Your task to perform on an android device: allow notifications from all sites in the chrome app Image 0: 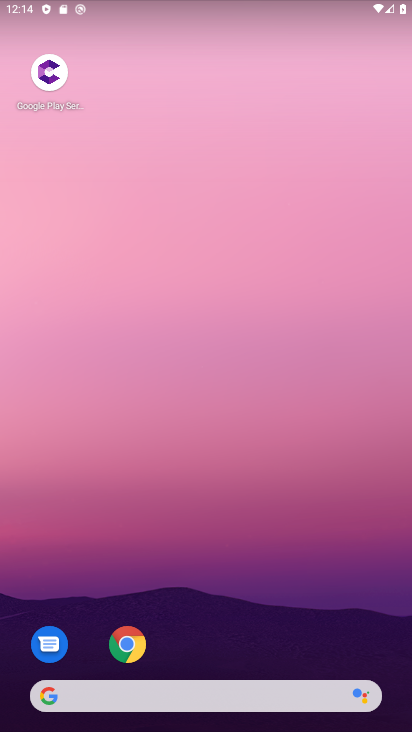
Step 0: click (123, 650)
Your task to perform on an android device: allow notifications from all sites in the chrome app Image 1: 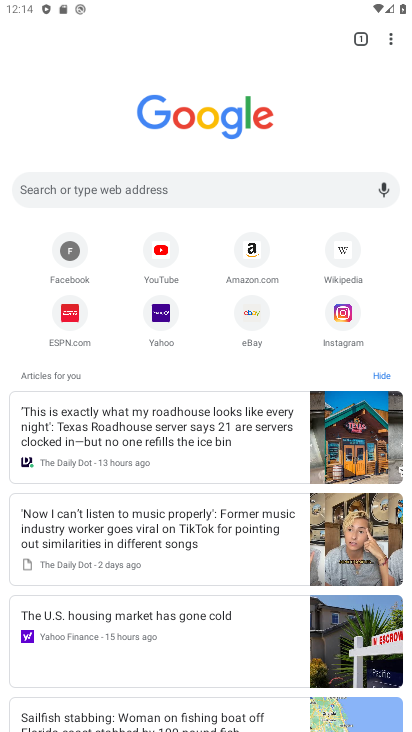
Step 1: click (383, 38)
Your task to perform on an android device: allow notifications from all sites in the chrome app Image 2: 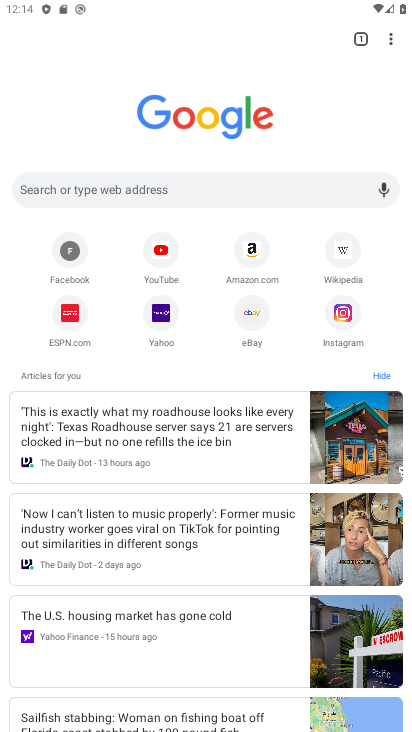
Step 2: click (392, 42)
Your task to perform on an android device: allow notifications from all sites in the chrome app Image 3: 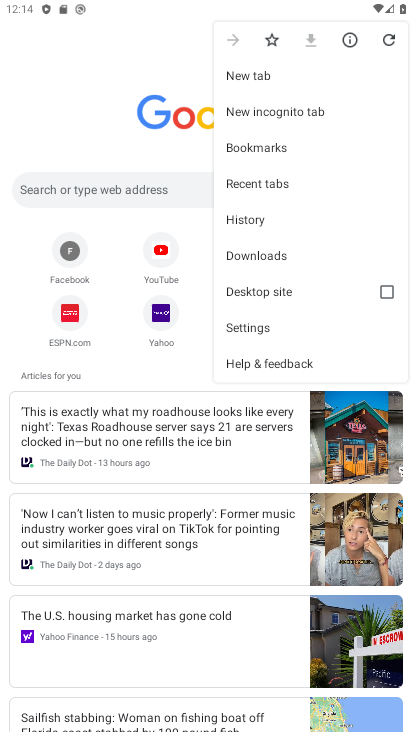
Step 3: click (257, 329)
Your task to perform on an android device: allow notifications from all sites in the chrome app Image 4: 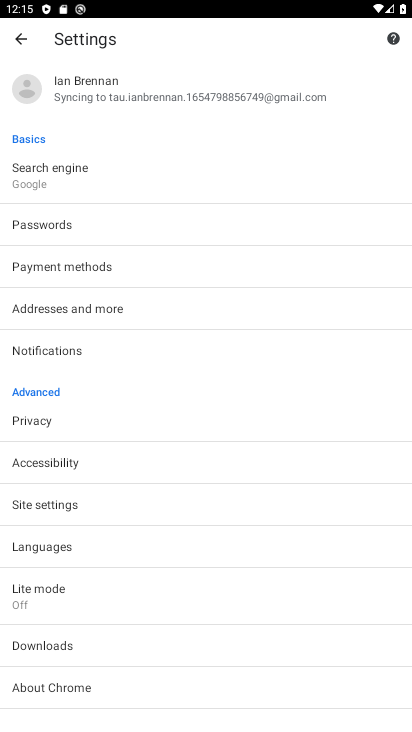
Step 4: click (36, 502)
Your task to perform on an android device: allow notifications from all sites in the chrome app Image 5: 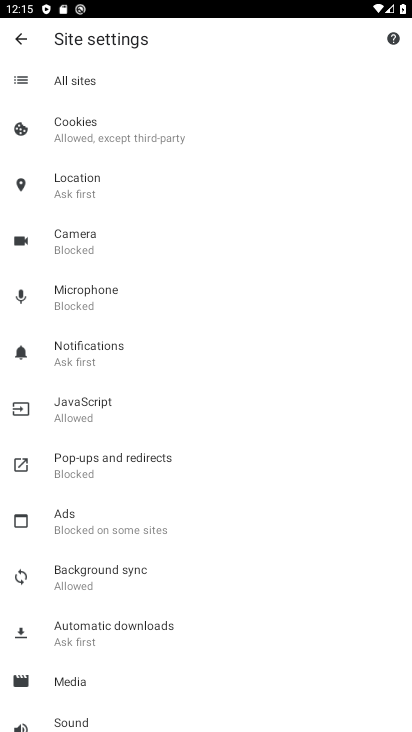
Step 5: click (84, 121)
Your task to perform on an android device: allow notifications from all sites in the chrome app Image 6: 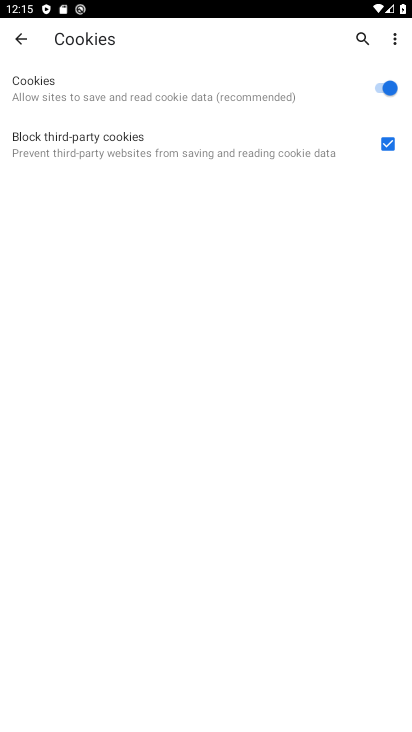
Step 6: click (21, 40)
Your task to perform on an android device: allow notifications from all sites in the chrome app Image 7: 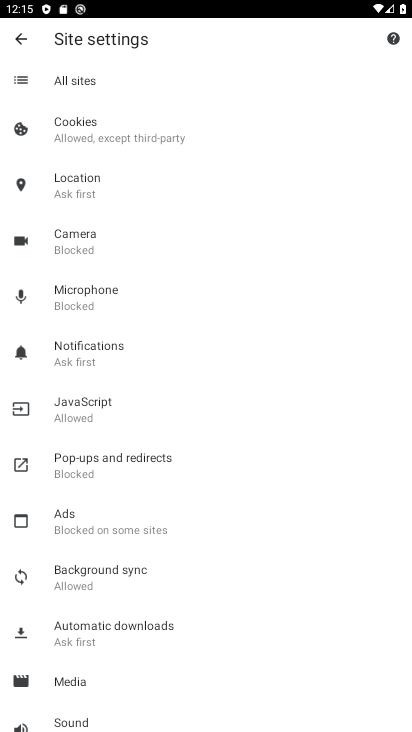
Step 7: click (90, 357)
Your task to perform on an android device: allow notifications from all sites in the chrome app Image 8: 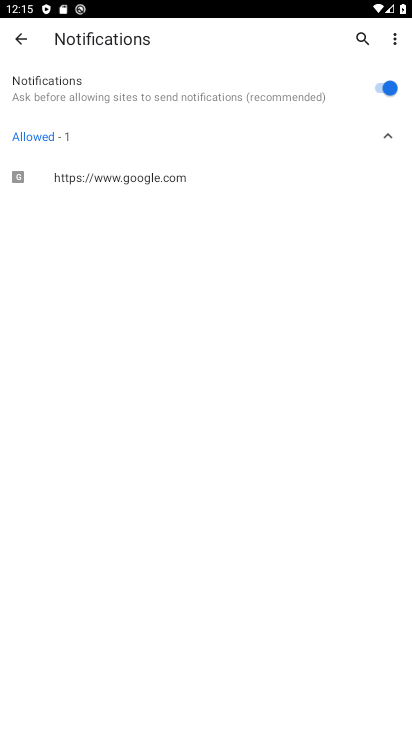
Step 8: task complete